Your task to perform on an android device: toggle improve location accuracy Image 0: 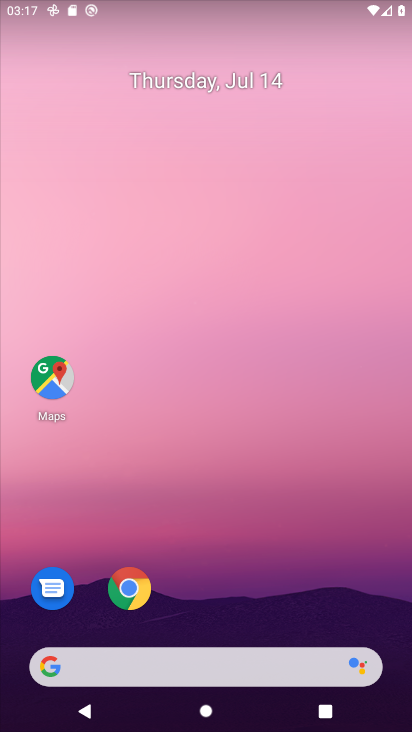
Step 0: drag from (316, 622) to (257, 218)
Your task to perform on an android device: toggle improve location accuracy Image 1: 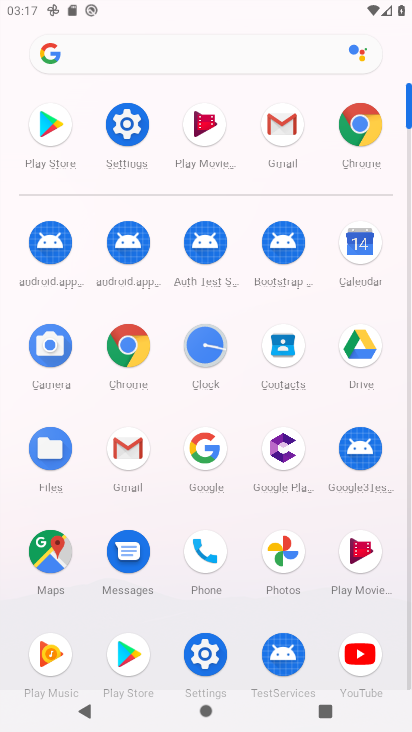
Step 1: click (118, 131)
Your task to perform on an android device: toggle improve location accuracy Image 2: 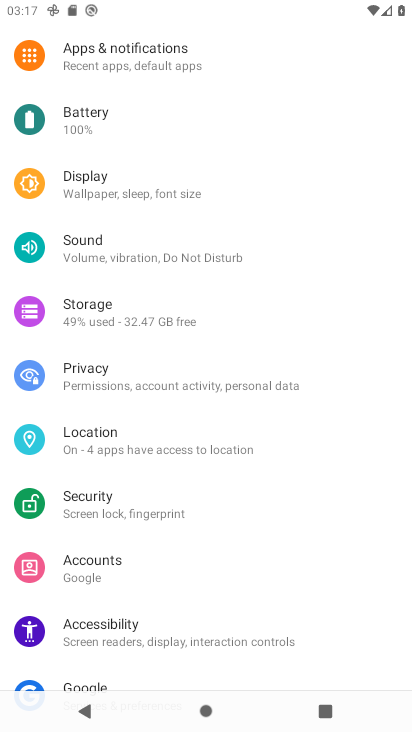
Step 2: click (160, 441)
Your task to perform on an android device: toggle improve location accuracy Image 3: 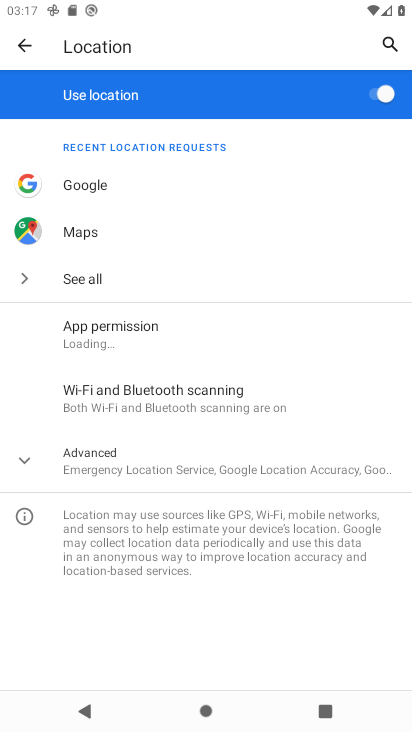
Step 3: click (208, 465)
Your task to perform on an android device: toggle improve location accuracy Image 4: 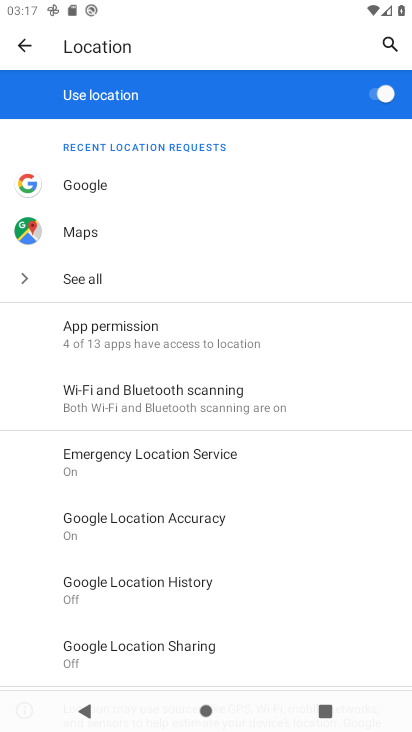
Step 4: click (242, 527)
Your task to perform on an android device: toggle improve location accuracy Image 5: 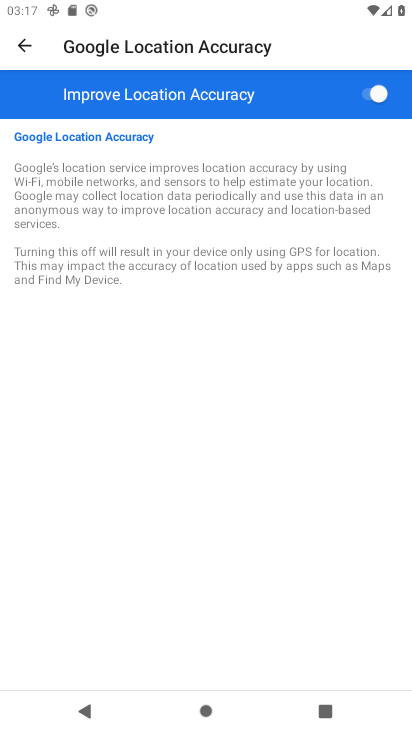
Step 5: click (365, 96)
Your task to perform on an android device: toggle improve location accuracy Image 6: 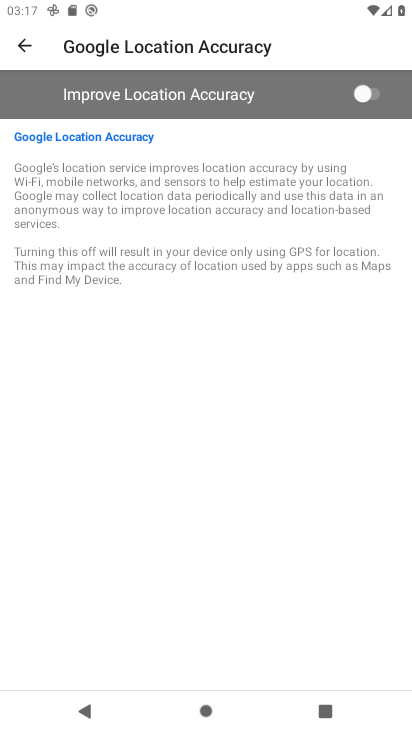
Step 6: task complete